Your task to perform on an android device: change alarm snooze length Image 0: 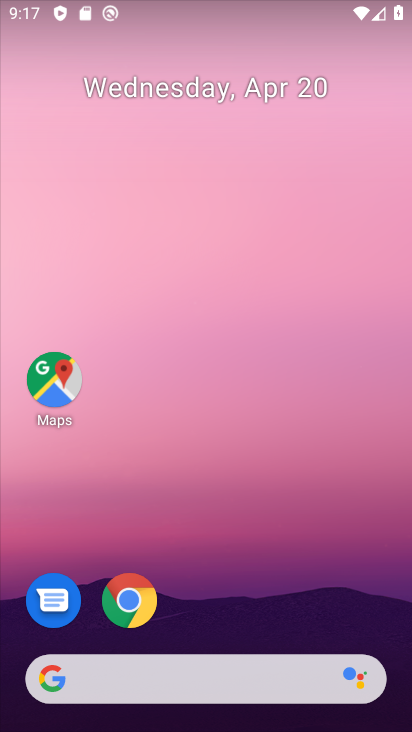
Step 0: drag from (379, 636) to (401, 10)
Your task to perform on an android device: change alarm snooze length Image 1: 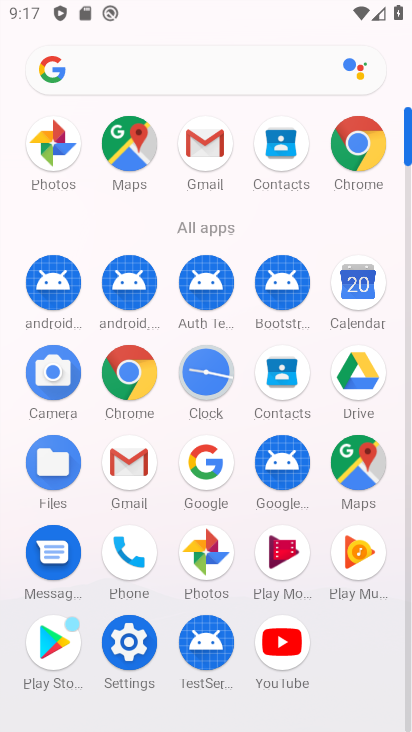
Step 1: click (205, 382)
Your task to perform on an android device: change alarm snooze length Image 2: 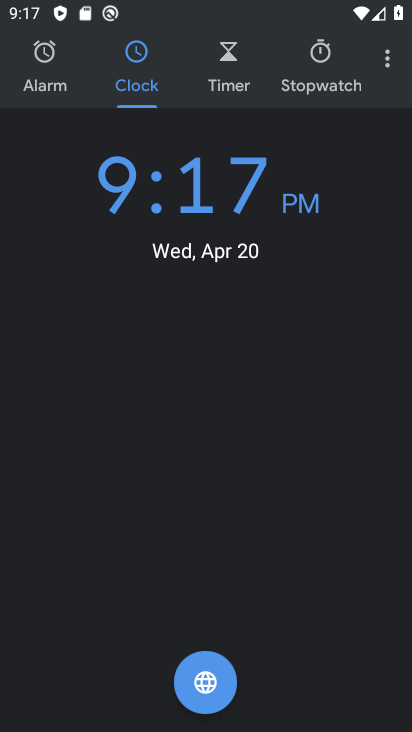
Step 2: click (387, 60)
Your task to perform on an android device: change alarm snooze length Image 3: 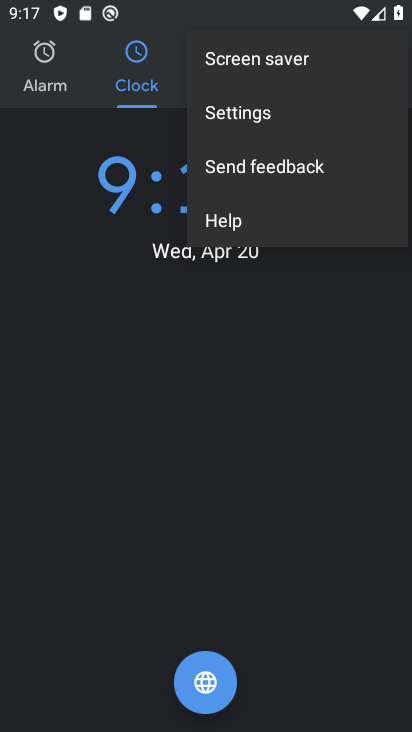
Step 3: click (252, 118)
Your task to perform on an android device: change alarm snooze length Image 4: 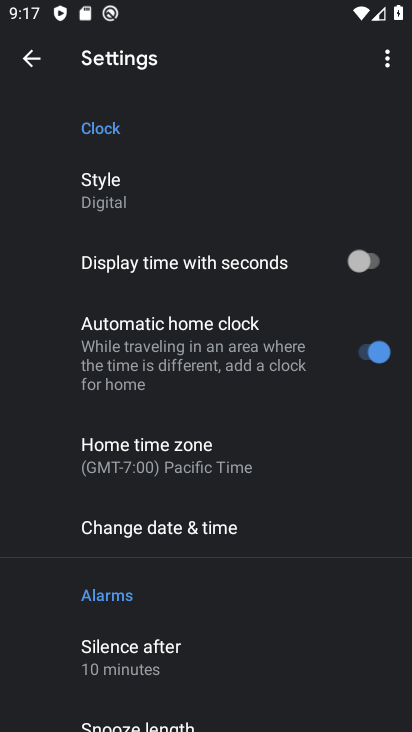
Step 4: drag from (276, 499) to (278, 192)
Your task to perform on an android device: change alarm snooze length Image 5: 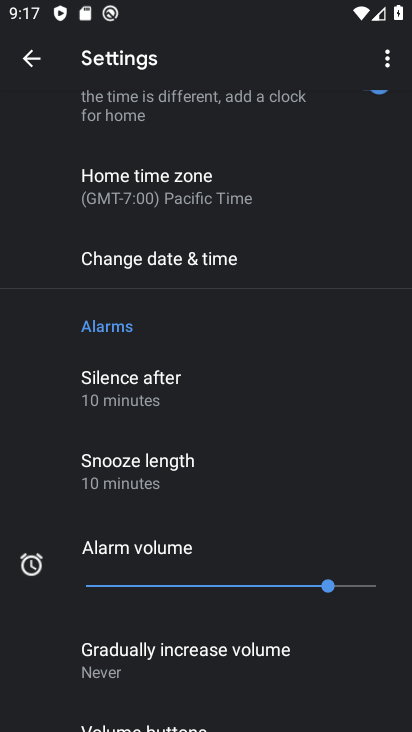
Step 5: click (148, 469)
Your task to perform on an android device: change alarm snooze length Image 6: 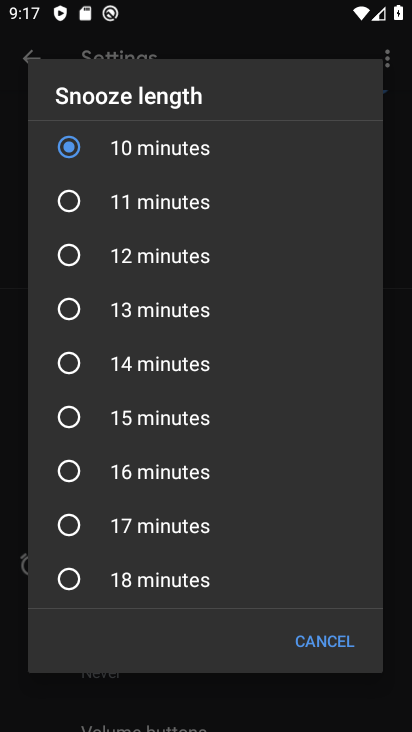
Step 6: click (69, 257)
Your task to perform on an android device: change alarm snooze length Image 7: 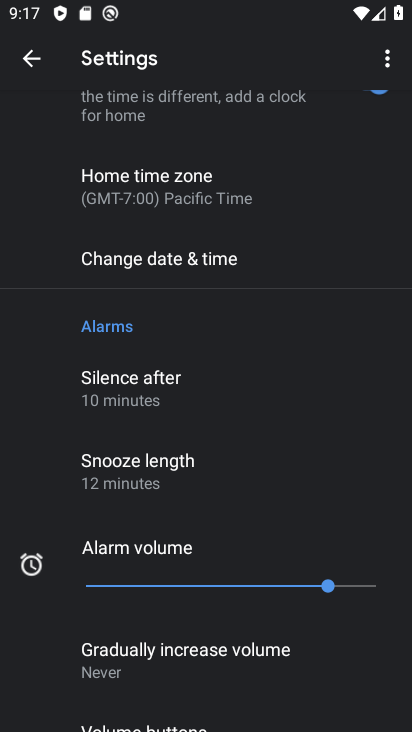
Step 7: task complete